Your task to perform on an android device: Open the stopwatch Image 0: 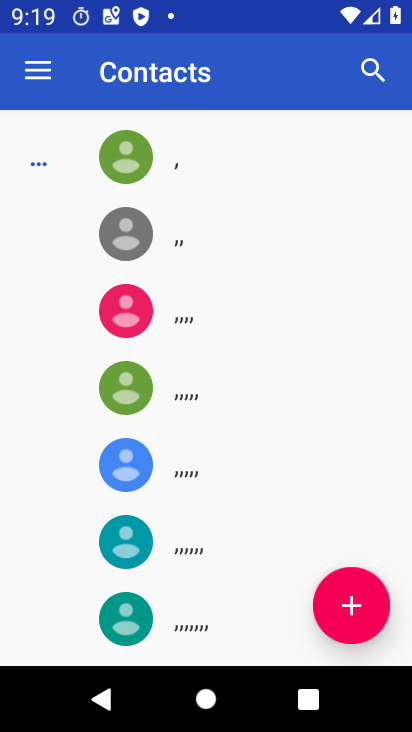
Step 0: press home button
Your task to perform on an android device: Open the stopwatch Image 1: 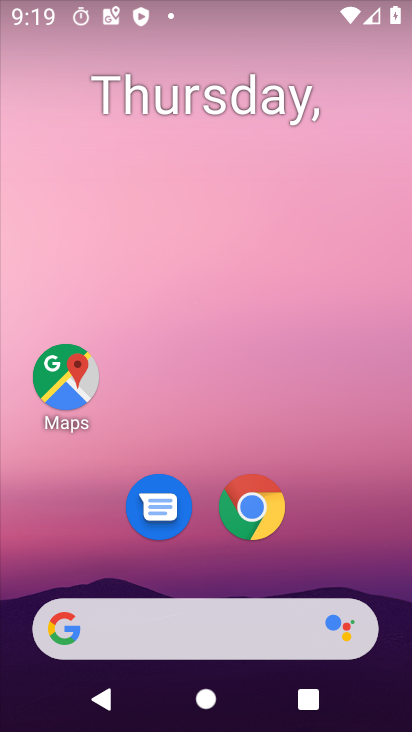
Step 1: drag from (201, 571) to (312, 11)
Your task to perform on an android device: Open the stopwatch Image 2: 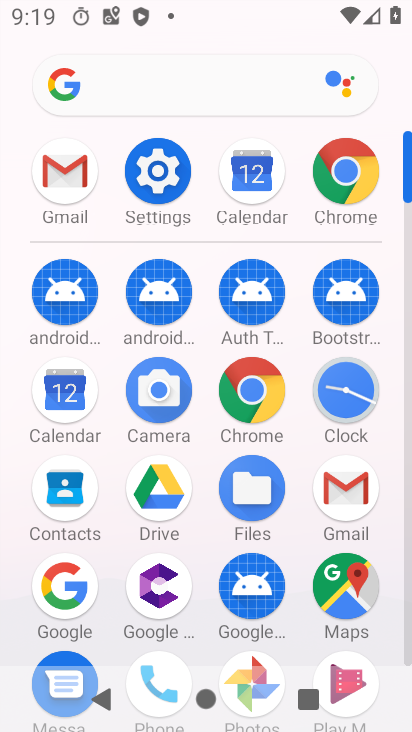
Step 2: click (356, 413)
Your task to perform on an android device: Open the stopwatch Image 3: 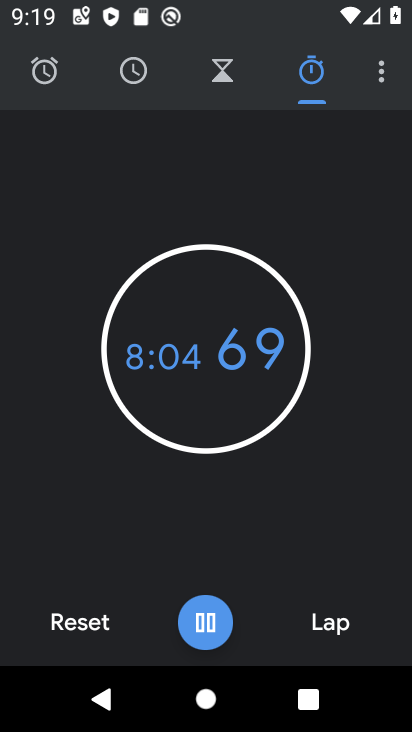
Step 3: click (83, 629)
Your task to perform on an android device: Open the stopwatch Image 4: 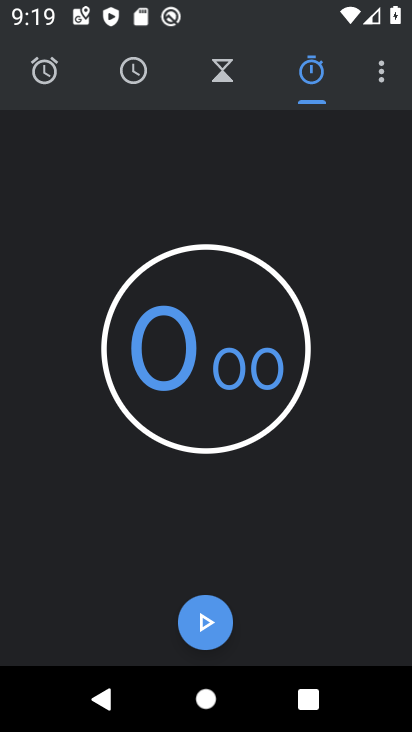
Step 4: click (211, 621)
Your task to perform on an android device: Open the stopwatch Image 5: 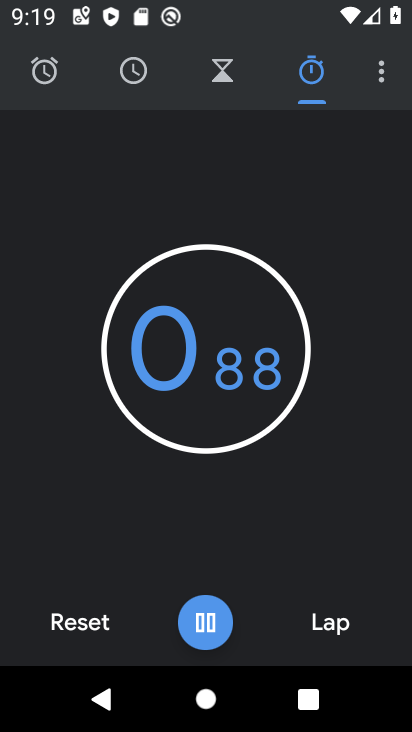
Step 5: task complete